Your task to perform on an android device: add a contact Image 0: 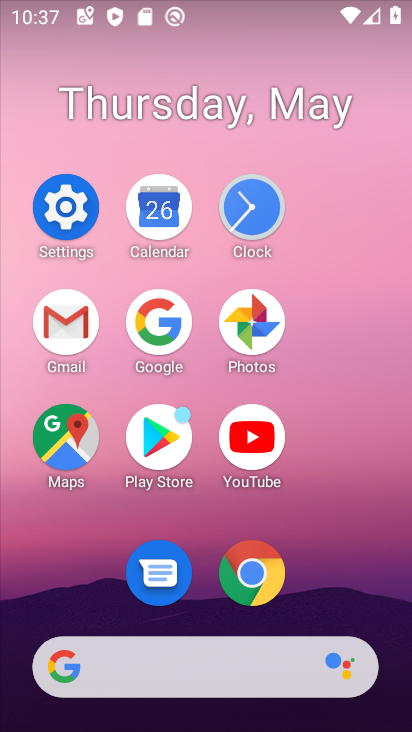
Step 0: drag from (347, 485) to (321, 164)
Your task to perform on an android device: add a contact Image 1: 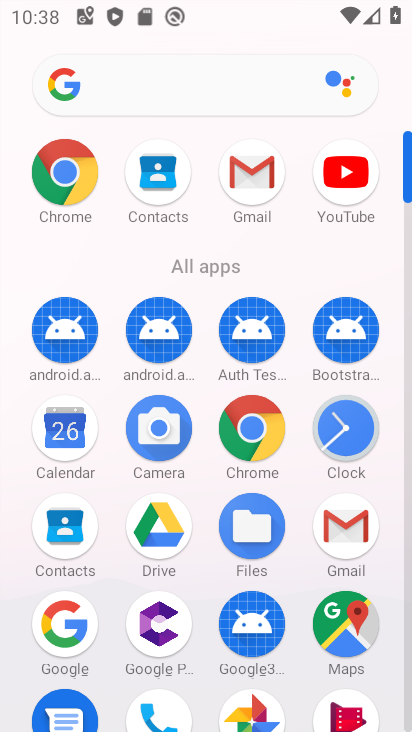
Step 1: drag from (65, 544) to (52, 584)
Your task to perform on an android device: add a contact Image 2: 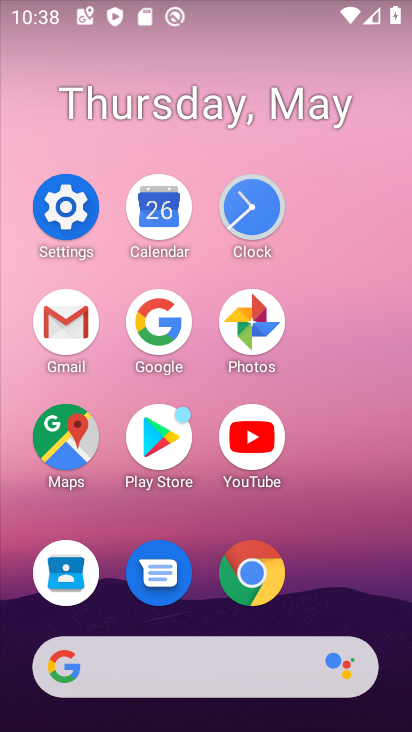
Step 2: click (51, 566)
Your task to perform on an android device: add a contact Image 3: 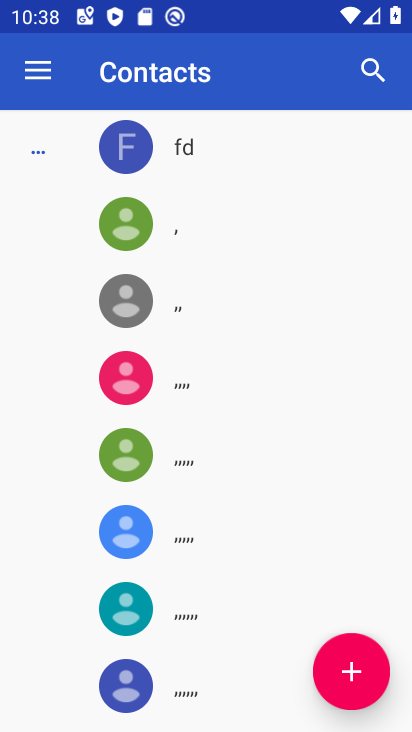
Step 3: click (338, 663)
Your task to perform on an android device: add a contact Image 4: 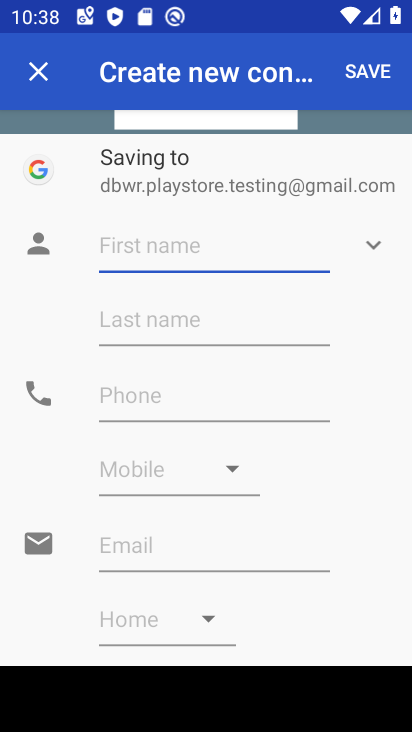
Step 4: type "flight"
Your task to perform on an android device: add a contact Image 5: 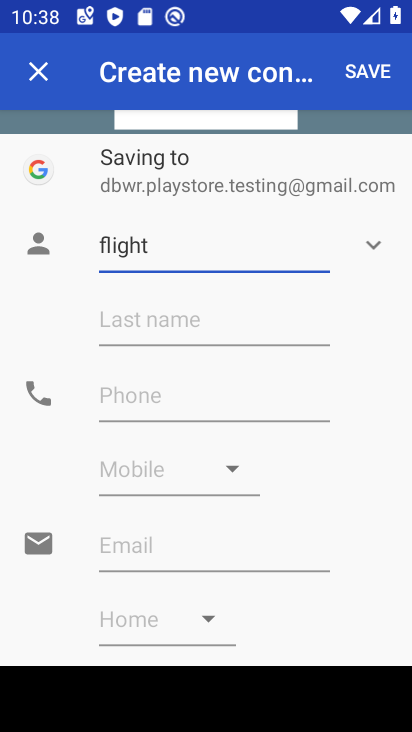
Step 5: click (238, 412)
Your task to perform on an android device: add a contact Image 6: 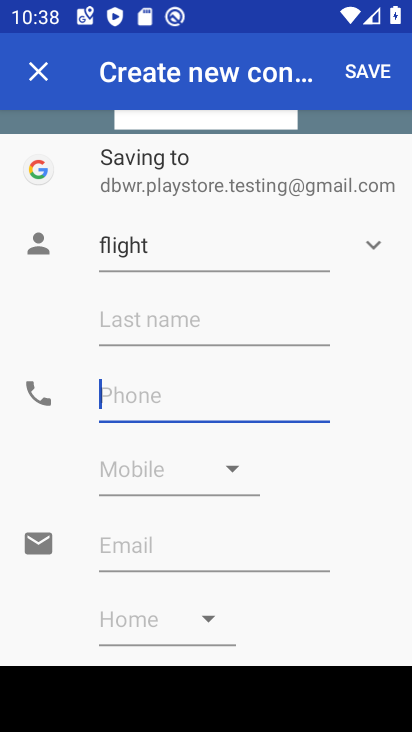
Step 6: type "3300330098"
Your task to perform on an android device: add a contact Image 7: 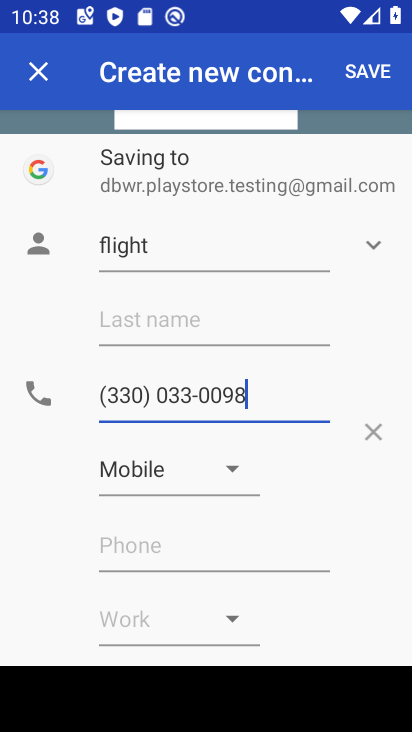
Step 7: click (386, 78)
Your task to perform on an android device: add a contact Image 8: 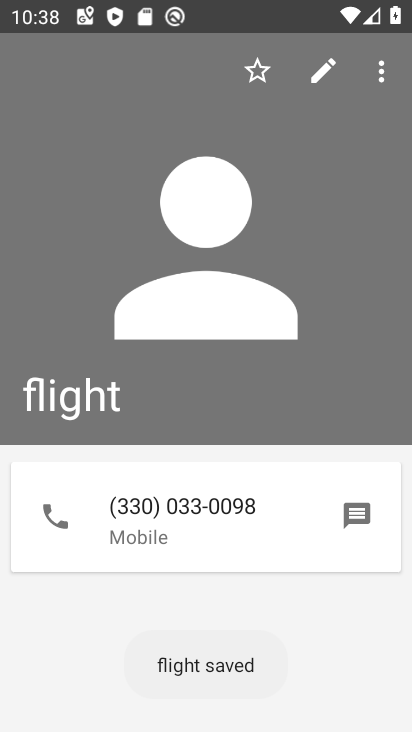
Step 8: task complete